Your task to perform on an android device: Add razer blade to the cart on walmart.com Image 0: 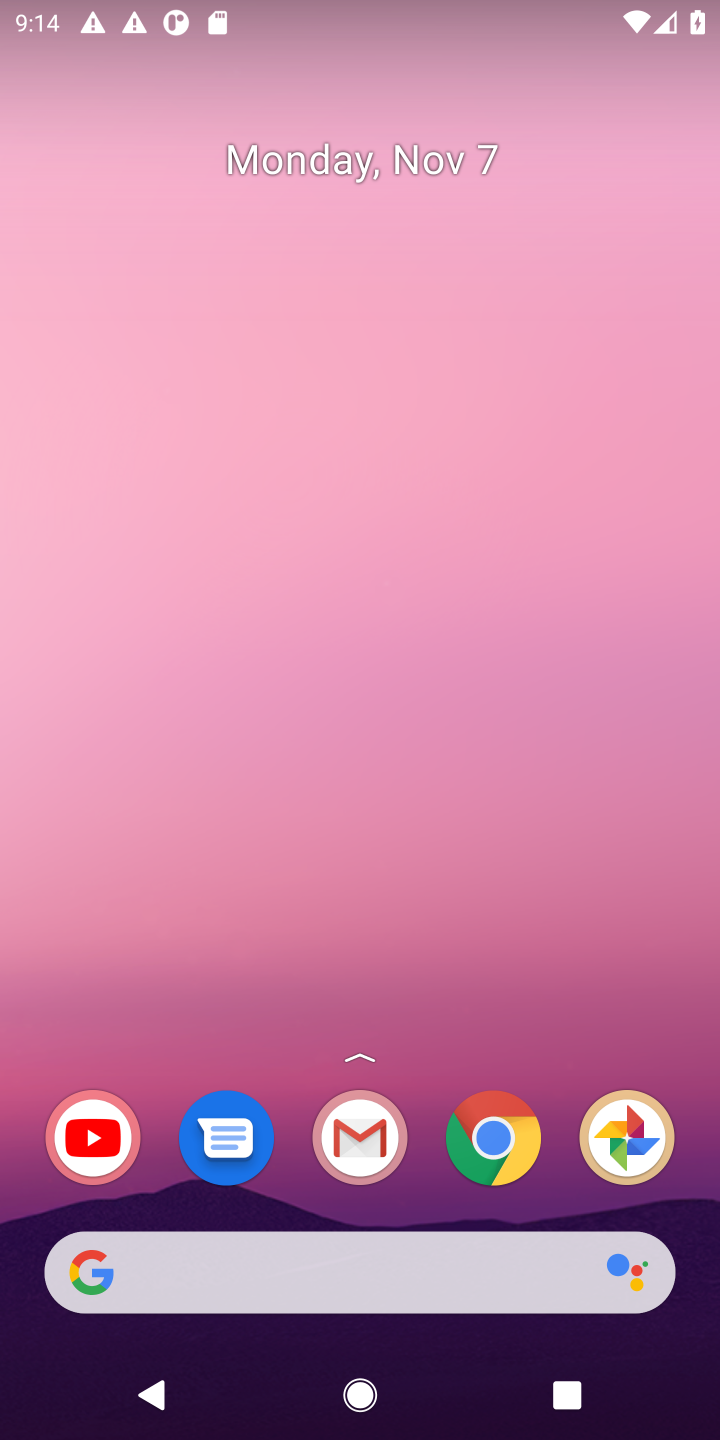
Step 0: click (494, 1134)
Your task to perform on an android device: Add razer blade to the cart on walmart.com Image 1: 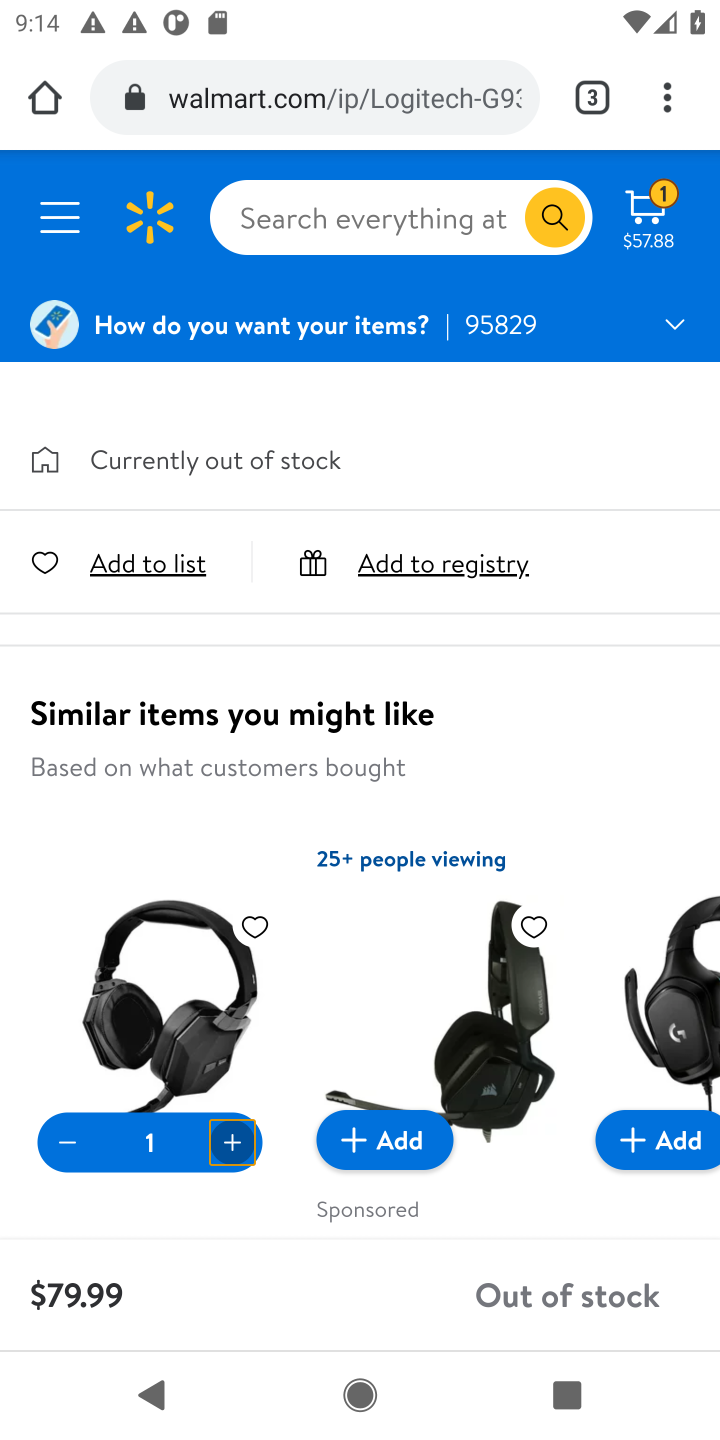
Step 1: click (327, 390)
Your task to perform on an android device: Add razer blade to the cart on walmart.com Image 2: 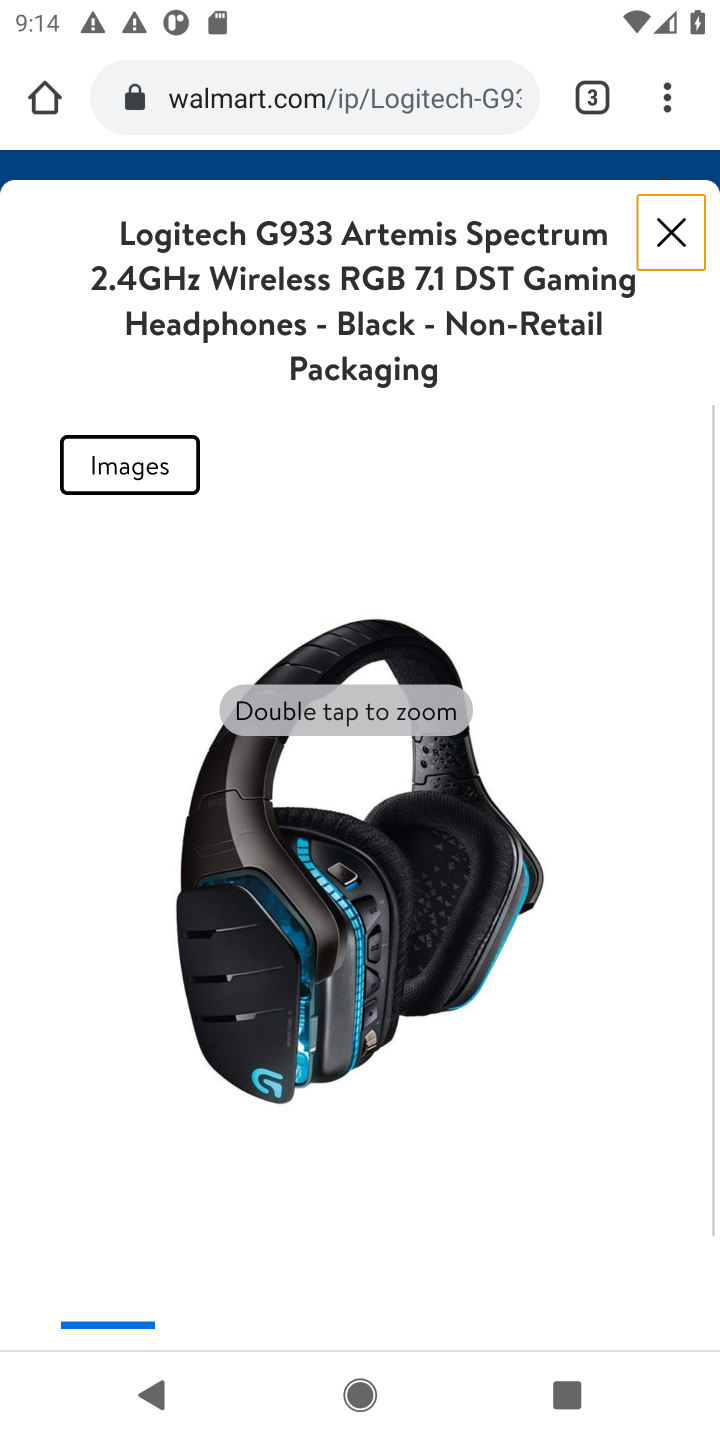
Step 2: type "razer blade "
Your task to perform on an android device: Add razer blade to the cart on walmart.com Image 3: 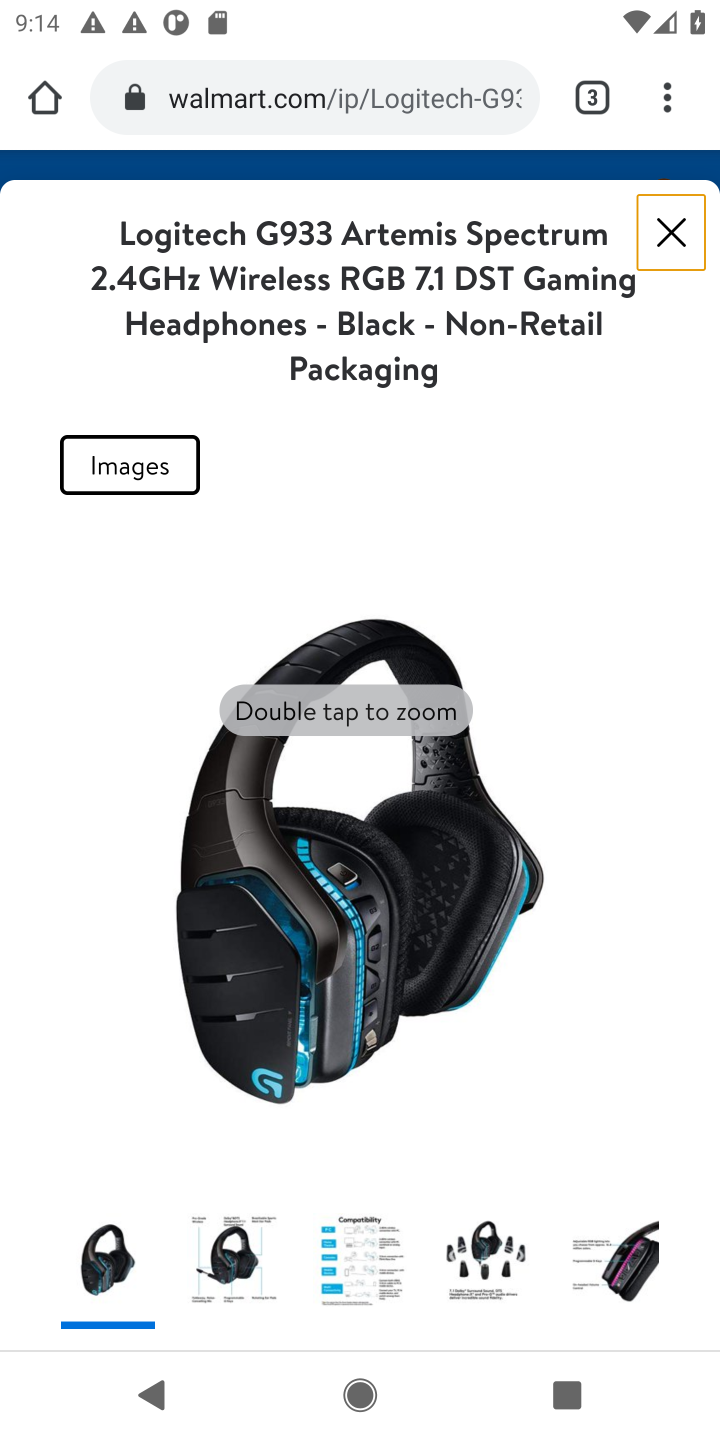
Step 3: click (663, 224)
Your task to perform on an android device: Add razer blade to the cart on walmart.com Image 4: 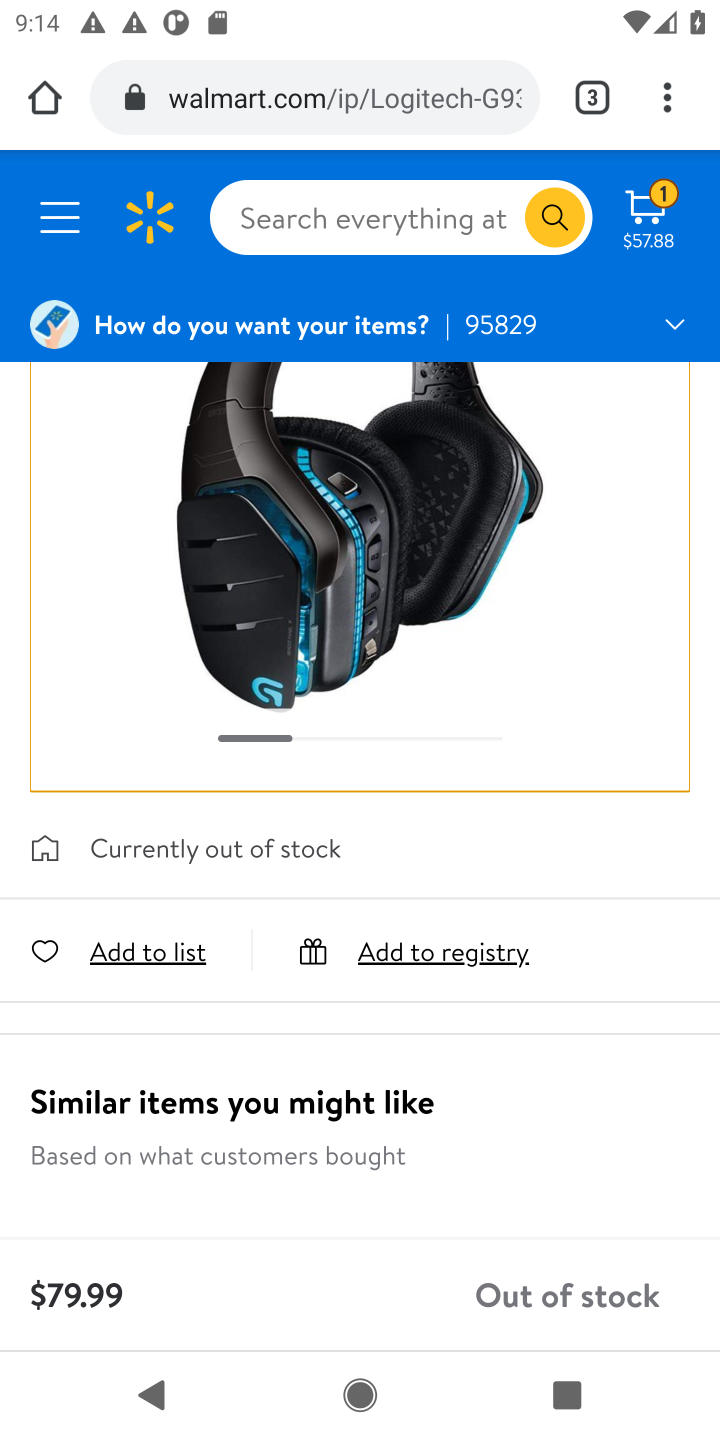
Step 4: click (369, 206)
Your task to perform on an android device: Add razer blade to the cart on walmart.com Image 5: 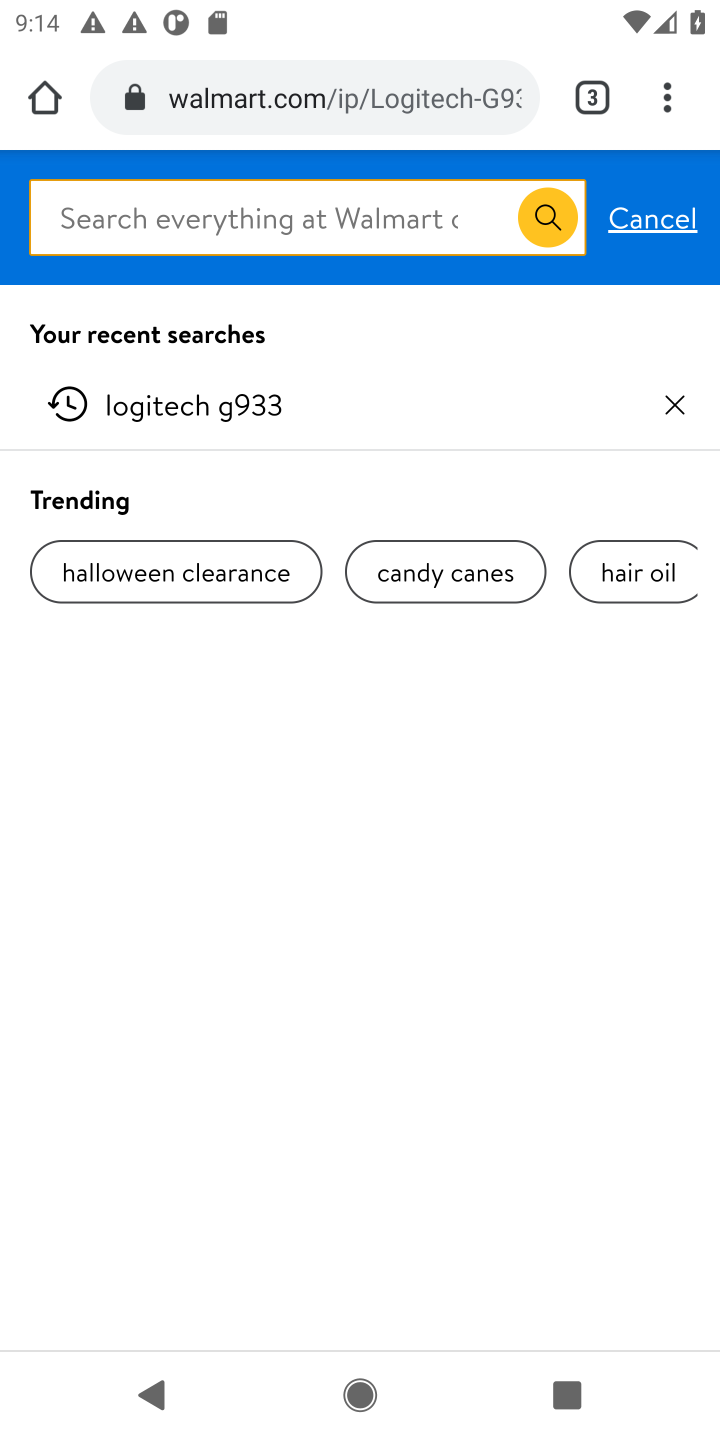
Step 5: type "razer blade "
Your task to perform on an android device: Add razer blade to the cart on walmart.com Image 6: 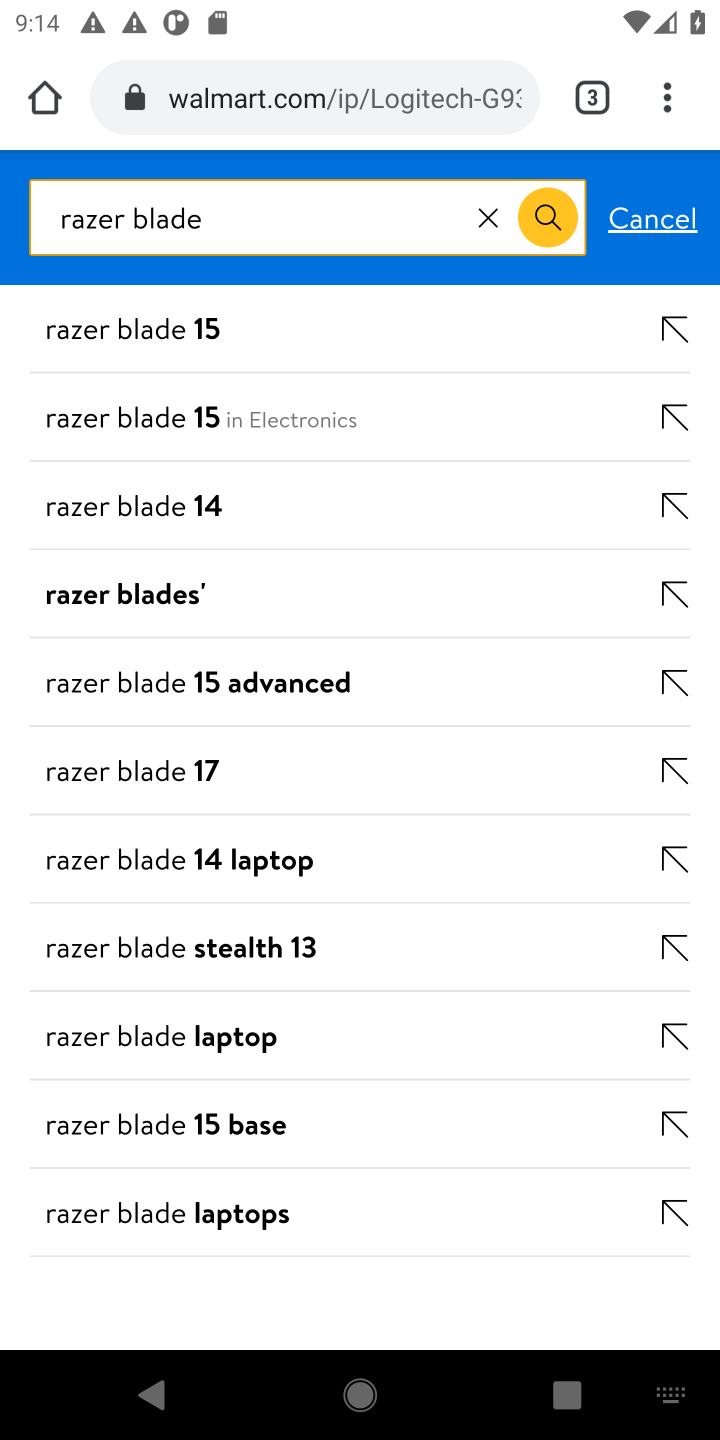
Step 6: click (155, 424)
Your task to perform on an android device: Add razer blade to the cart on walmart.com Image 7: 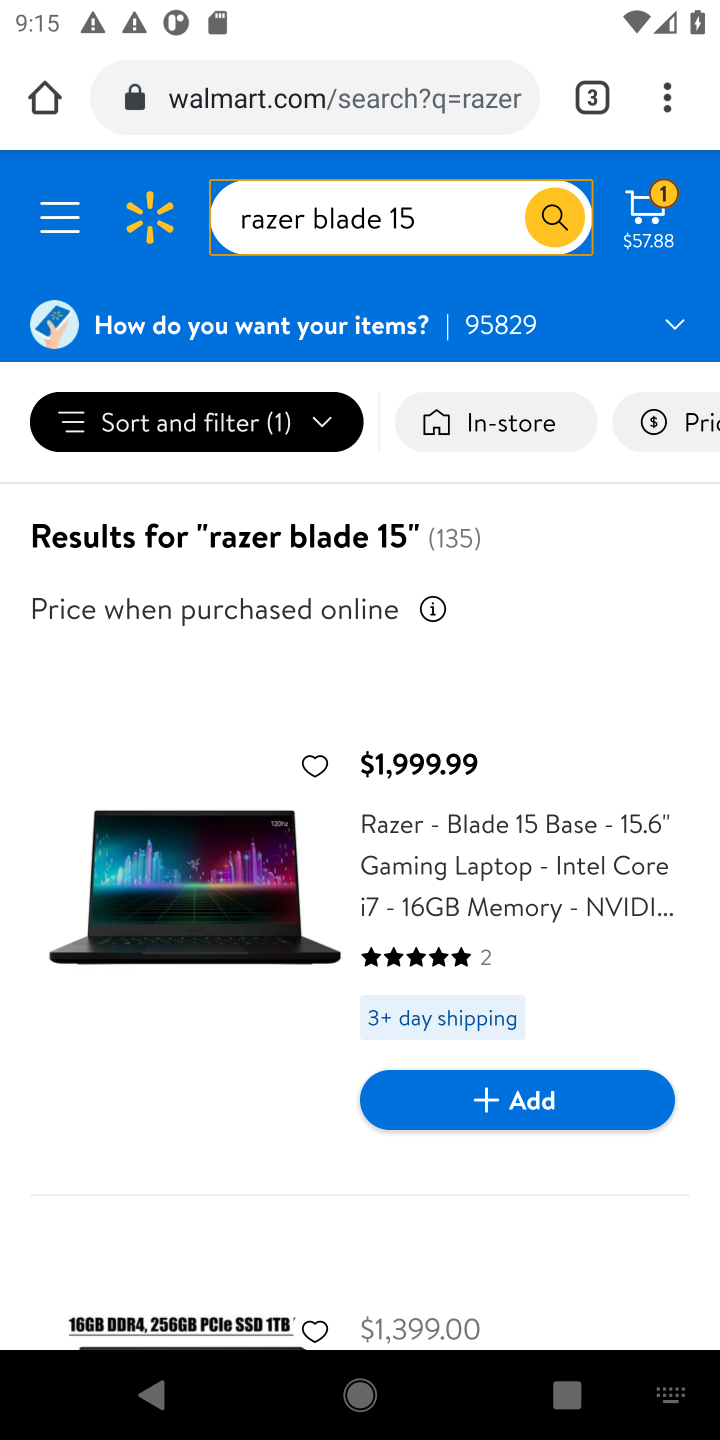
Step 7: click (523, 1112)
Your task to perform on an android device: Add razer blade to the cart on walmart.com Image 8: 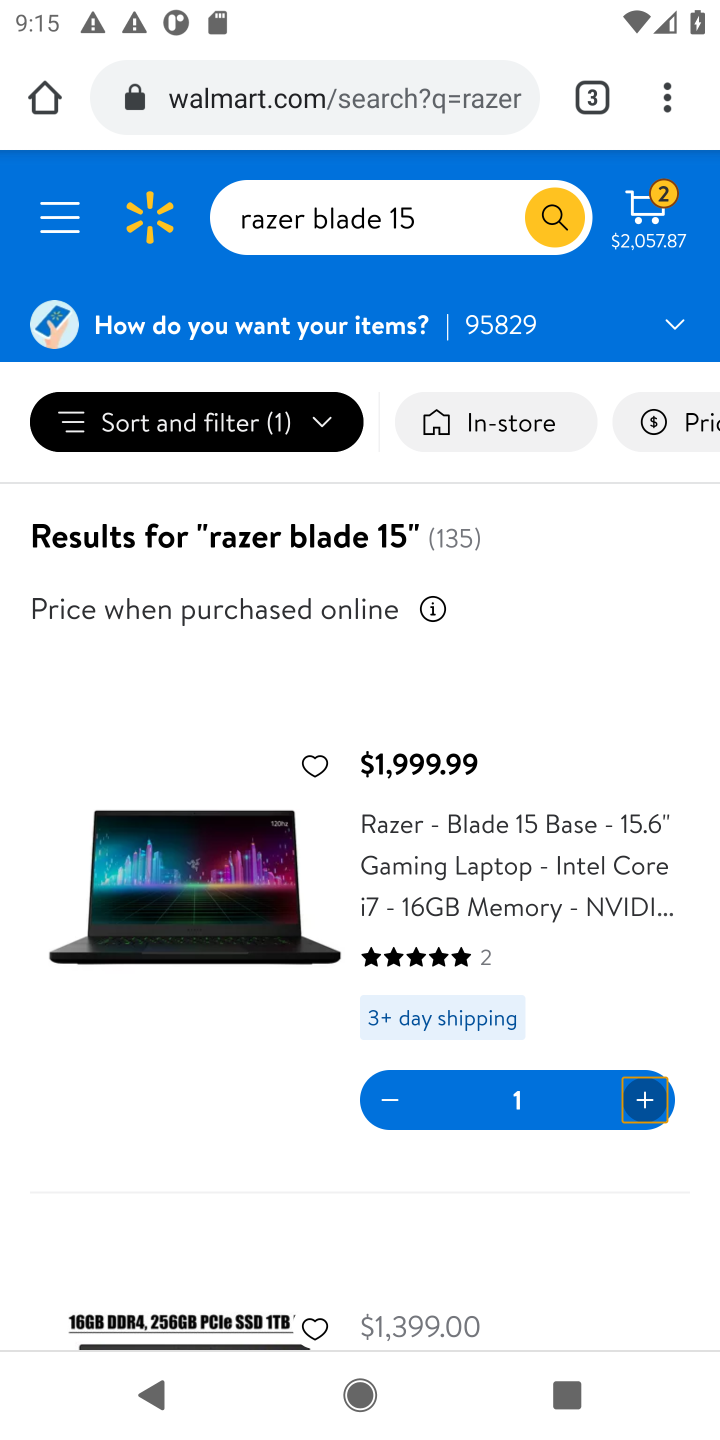
Step 8: task complete